Your task to perform on an android device: Open sound settings Image 0: 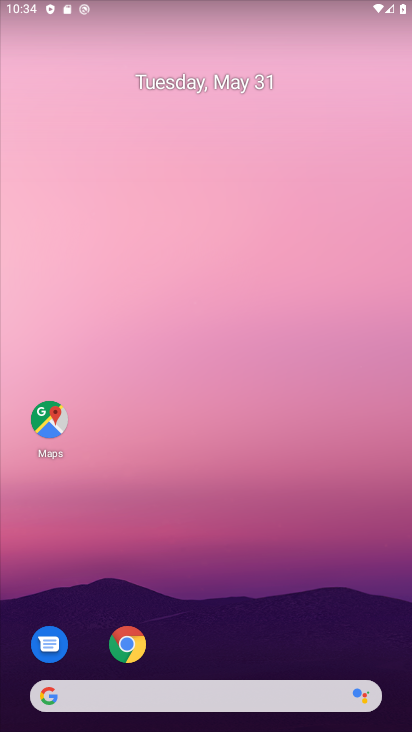
Step 0: drag from (234, 651) to (306, 214)
Your task to perform on an android device: Open sound settings Image 1: 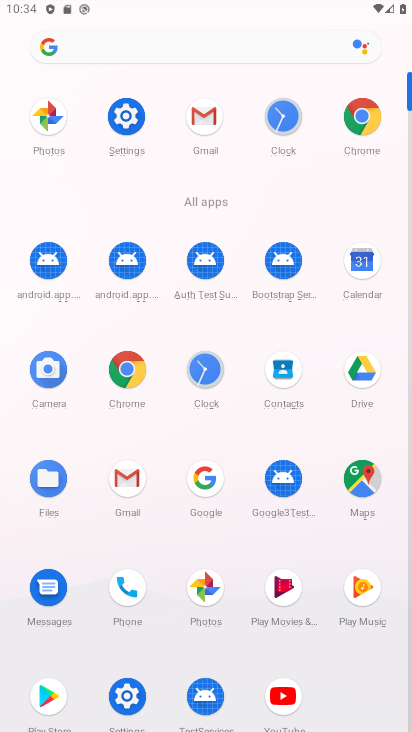
Step 1: click (124, 125)
Your task to perform on an android device: Open sound settings Image 2: 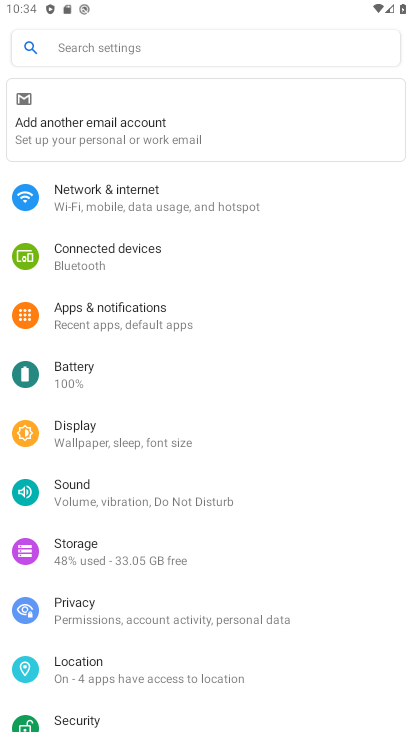
Step 2: click (129, 494)
Your task to perform on an android device: Open sound settings Image 3: 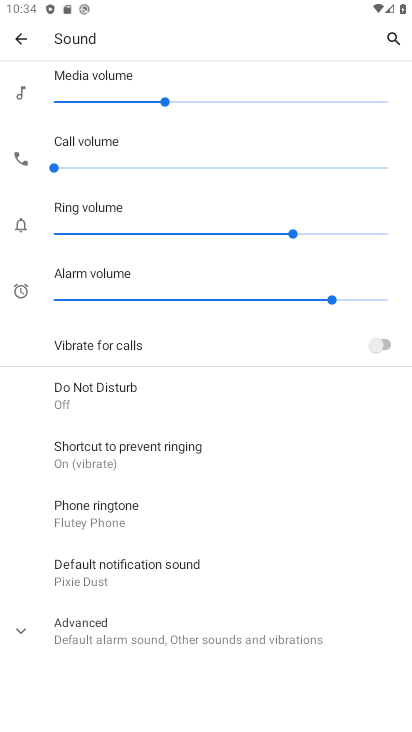
Step 3: task complete